Your task to perform on an android device: check the backup settings in the google photos Image 0: 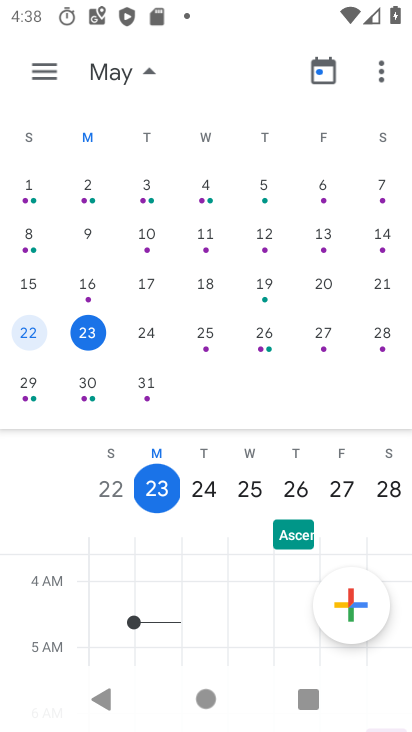
Step 0: press home button
Your task to perform on an android device: check the backup settings in the google photos Image 1: 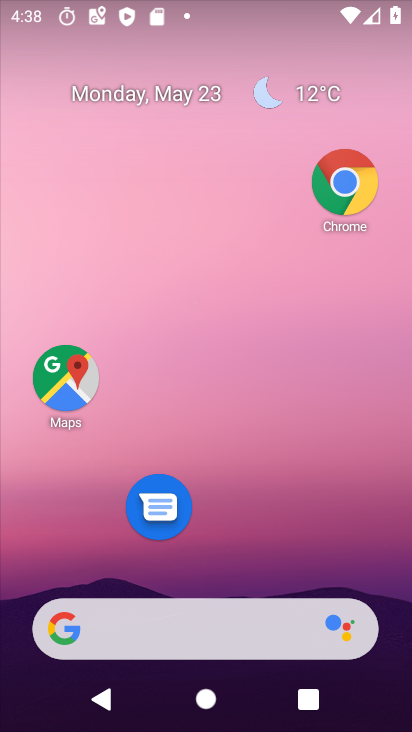
Step 1: drag from (198, 559) to (193, 119)
Your task to perform on an android device: check the backup settings in the google photos Image 2: 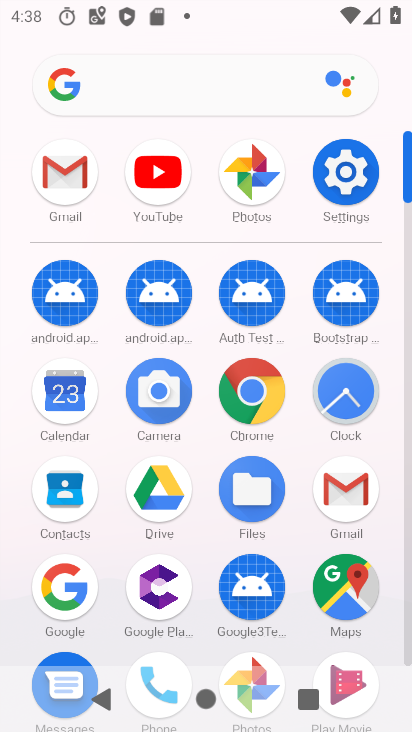
Step 2: click (256, 181)
Your task to perform on an android device: check the backup settings in the google photos Image 3: 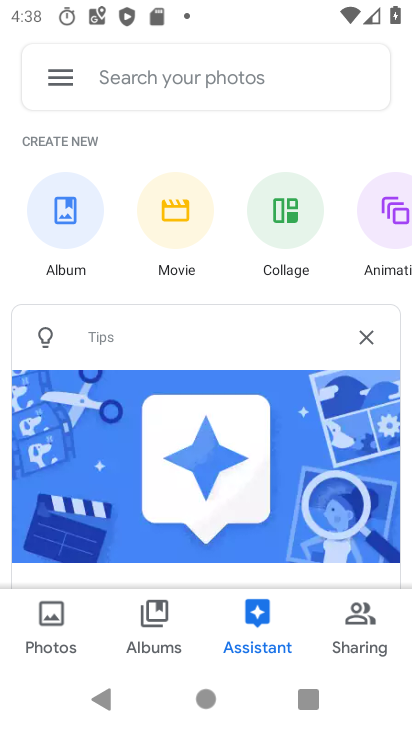
Step 3: click (60, 79)
Your task to perform on an android device: check the backup settings in the google photos Image 4: 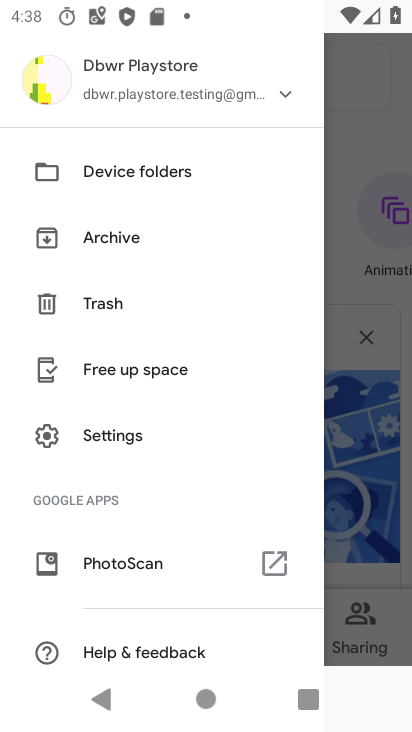
Step 4: click (141, 434)
Your task to perform on an android device: check the backup settings in the google photos Image 5: 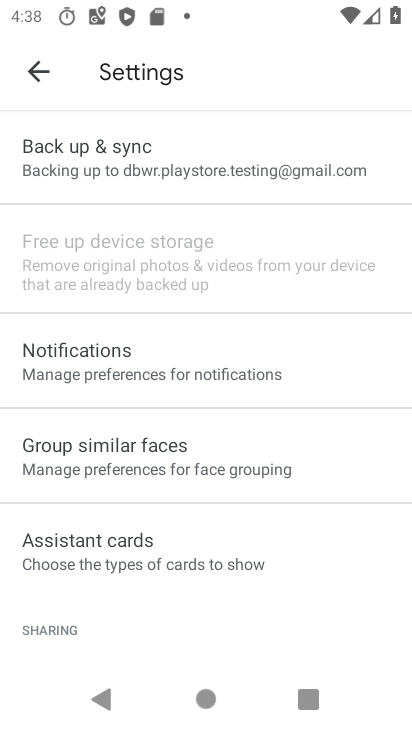
Step 5: click (151, 164)
Your task to perform on an android device: check the backup settings in the google photos Image 6: 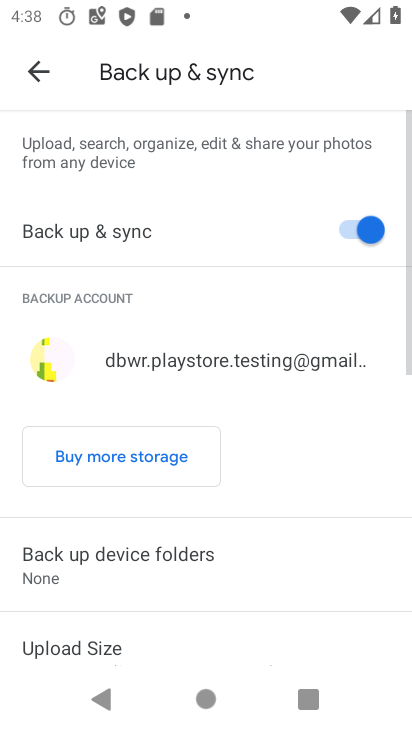
Step 6: task complete